Your task to perform on an android device: read, delete, or share a saved page in the chrome app Image 0: 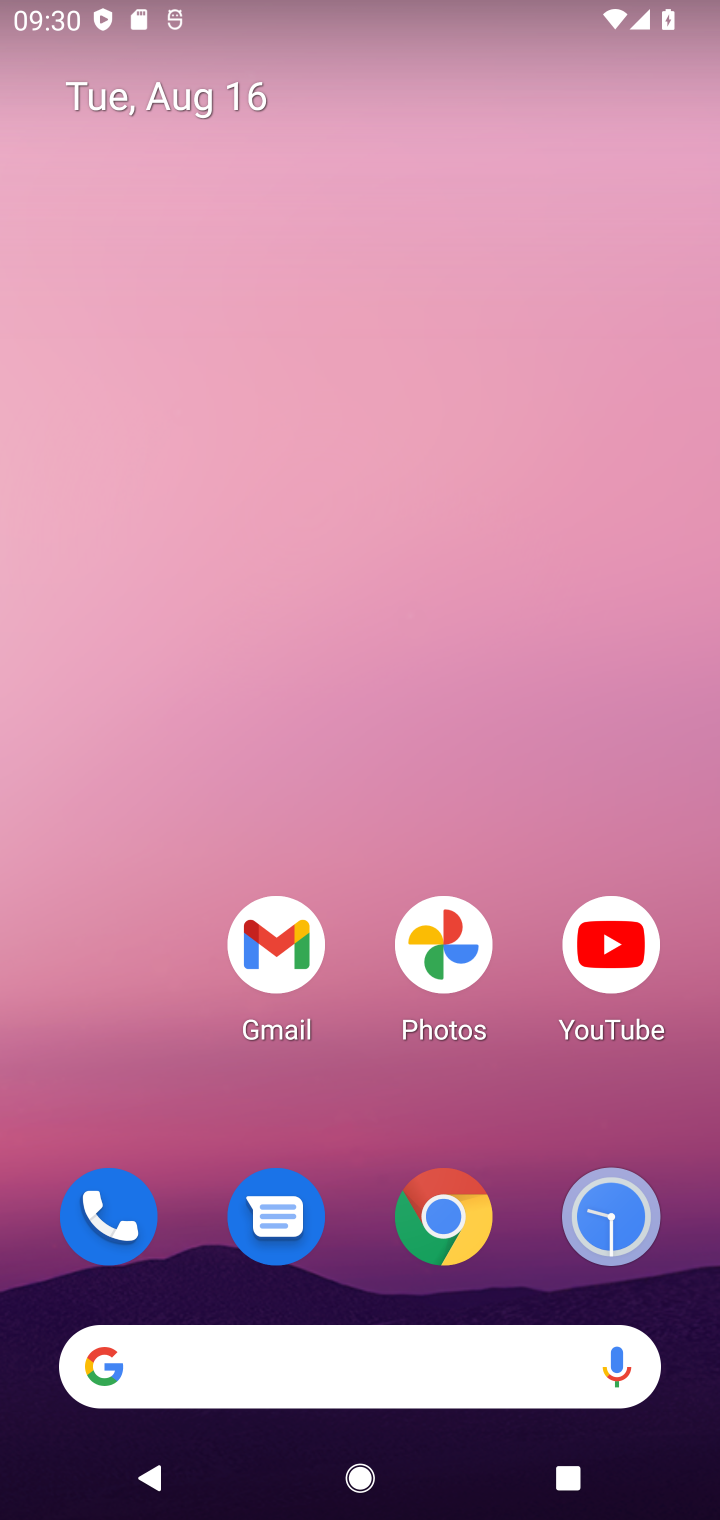
Step 0: click (450, 1213)
Your task to perform on an android device: read, delete, or share a saved page in the chrome app Image 1: 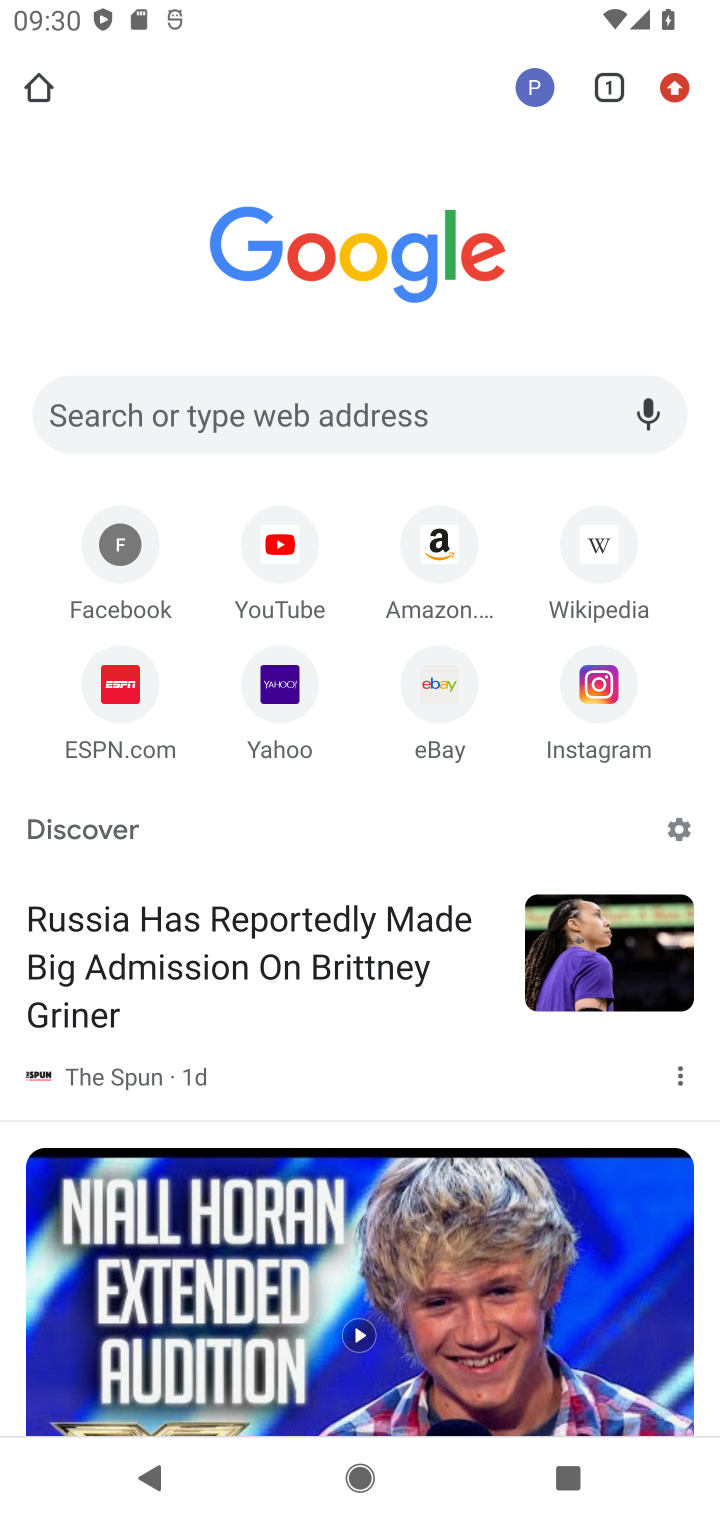
Step 1: click (676, 94)
Your task to perform on an android device: read, delete, or share a saved page in the chrome app Image 2: 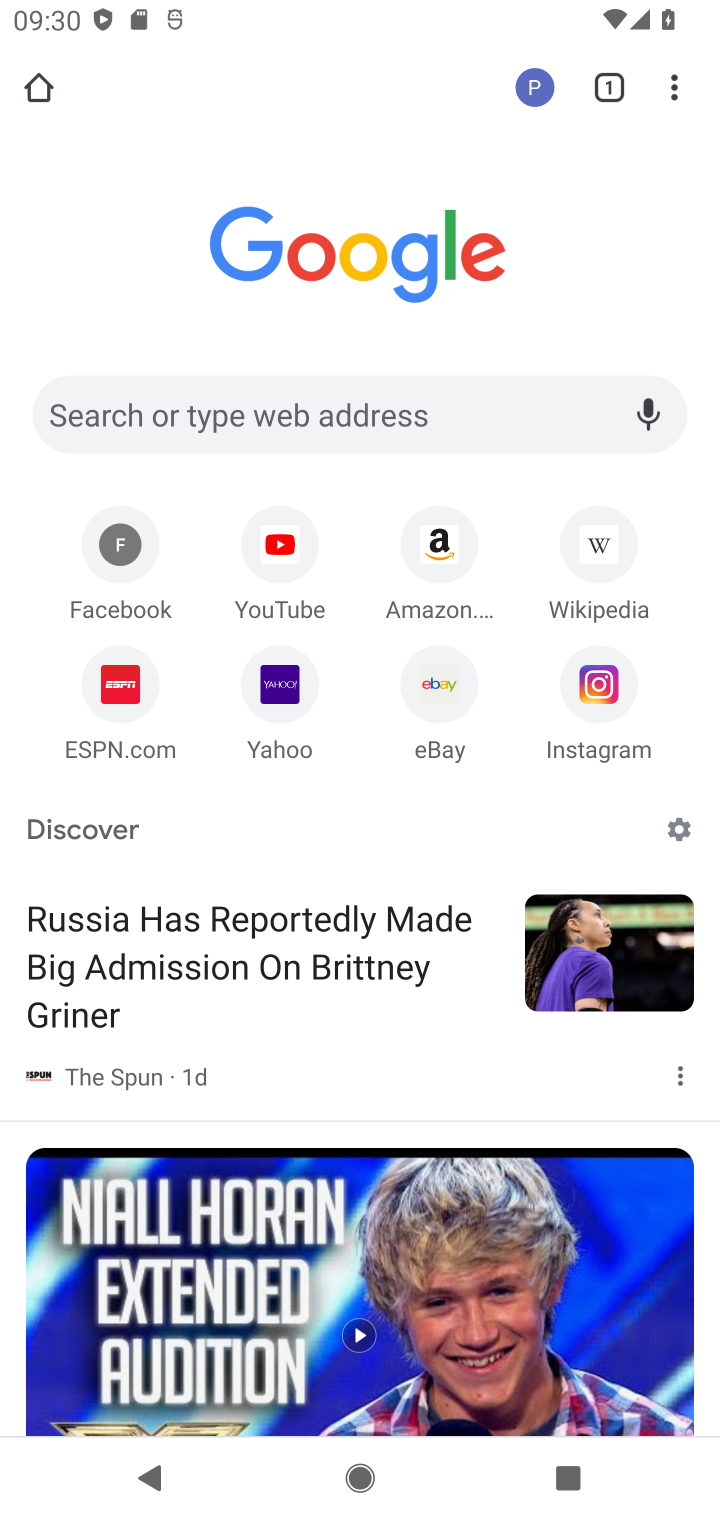
Step 2: task complete